Your task to perform on an android device: star an email in the gmail app Image 0: 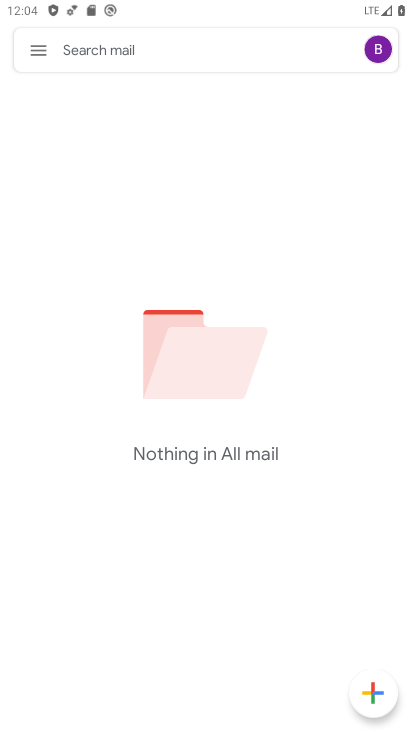
Step 0: press home button
Your task to perform on an android device: star an email in the gmail app Image 1: 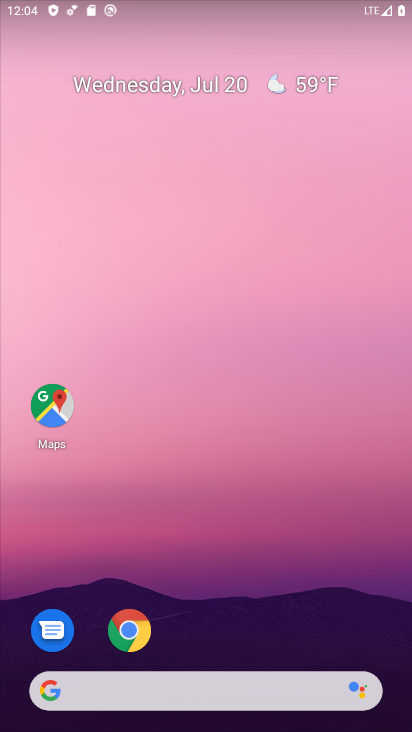
Step 1: drag from (227, 625) to (199, 317)
Your task to perform on an android device: star an email in the gmail app Image 2: 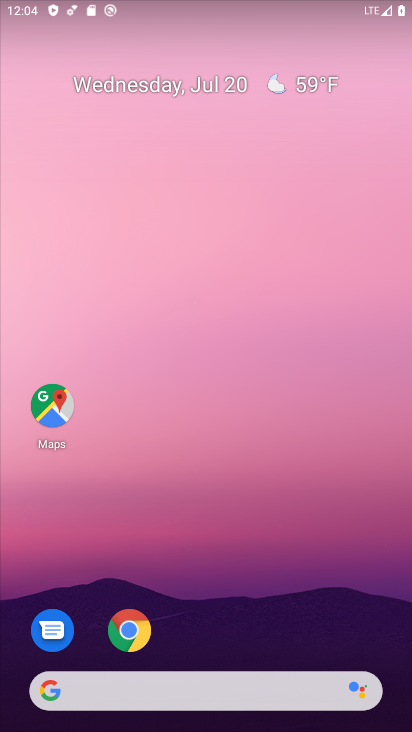
Step 2: drag from (248, 645) to (294, 137)
Your task to perform on an android device: star an email in the gmail app Image 3: 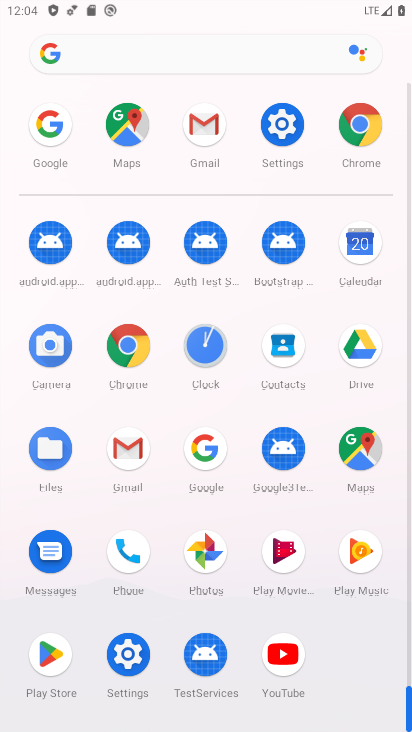
Step 3: click (131, 468)
Your task to perform on an android device: star an email in the gmail app Image 4: 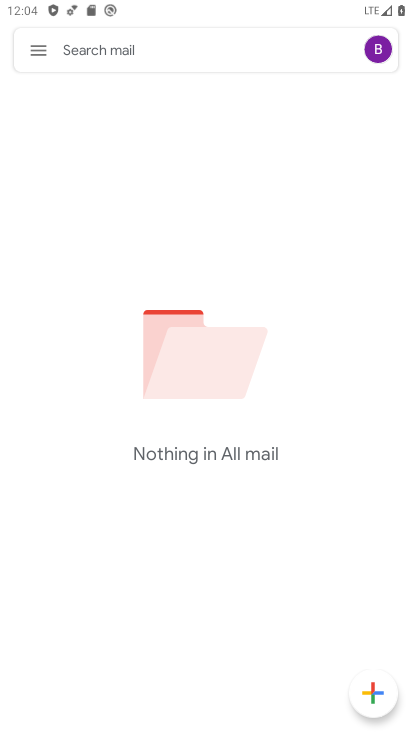
Step 4: click (41, 51)
Your task to perform on an android device: star an email in the gmail app Image 5: 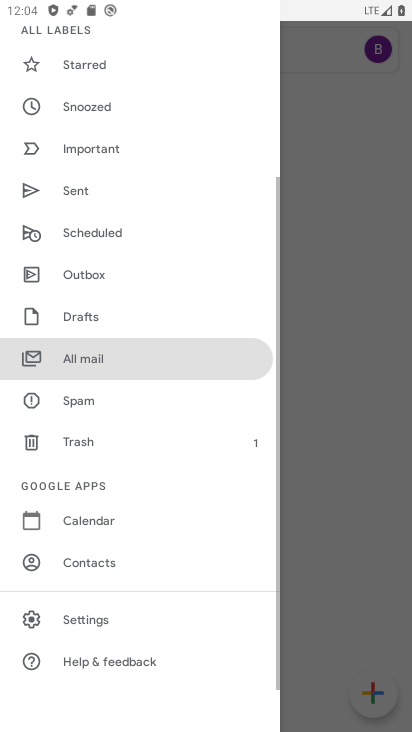
Step 5: drag from (120, 208) to (75, 554)
Your task to perform on an android device: star an email in the gmail app Image 6: 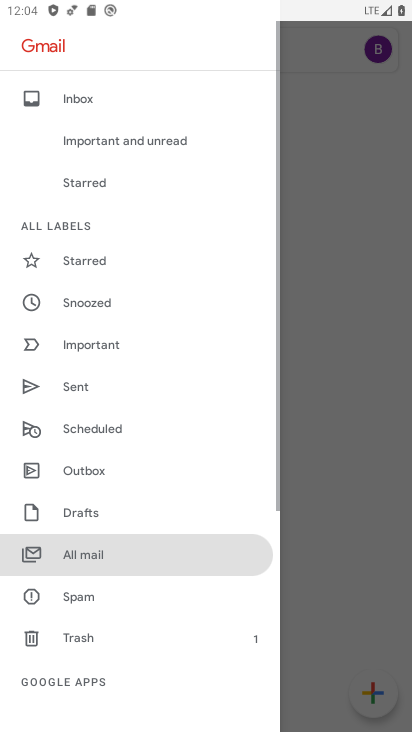
Step 6: click (126, 263)
Your task to perform on an android device: star an email in the gmail app Image 7: 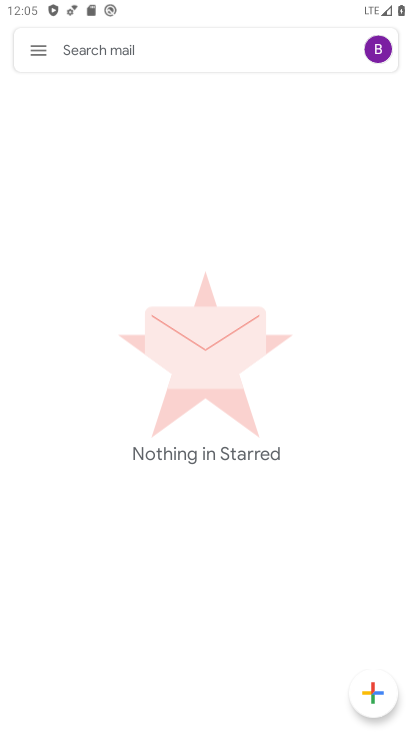
Step 7: task complete